Your task to perform on an android device: Empty the shopping cart on amazon.com. Image 0: 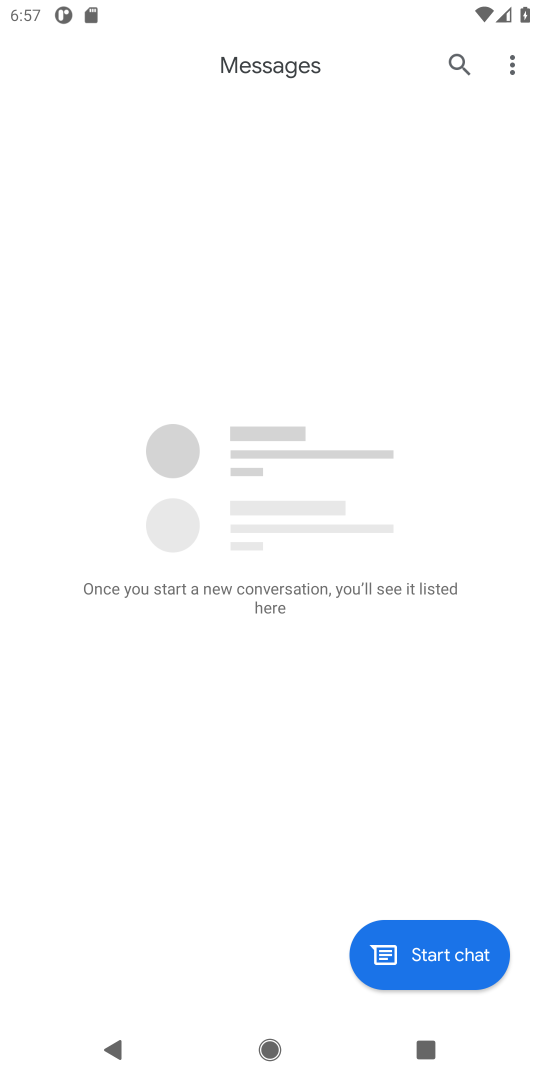
Step 0: press home button
Your task to perform on an android device: Empty the shopping cart on amazon.com. Image 1: 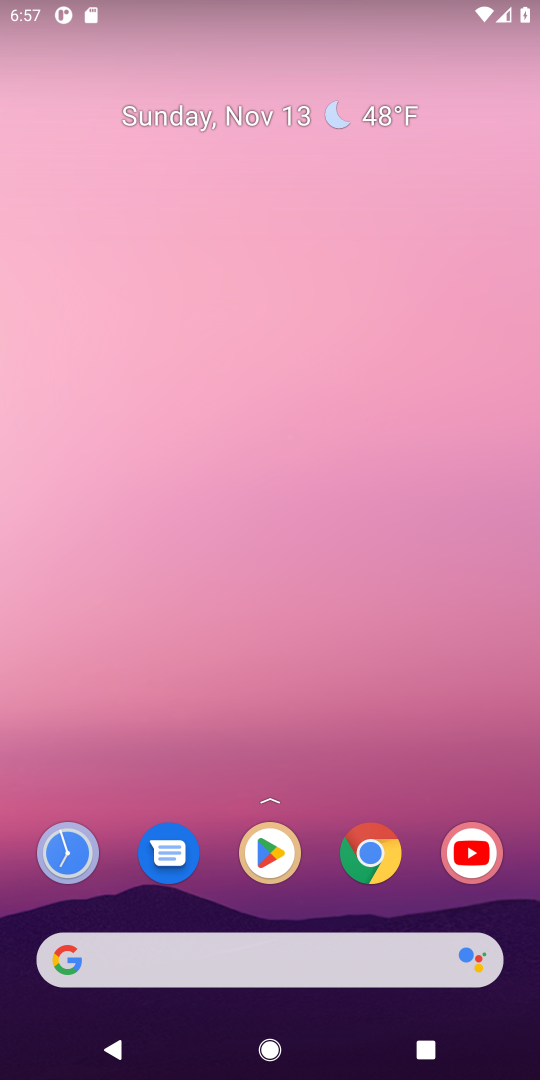
Step 1: click (101, 951)
Your task to perform on an android device: Empty the shopping cart on amazon.com. Image 2: 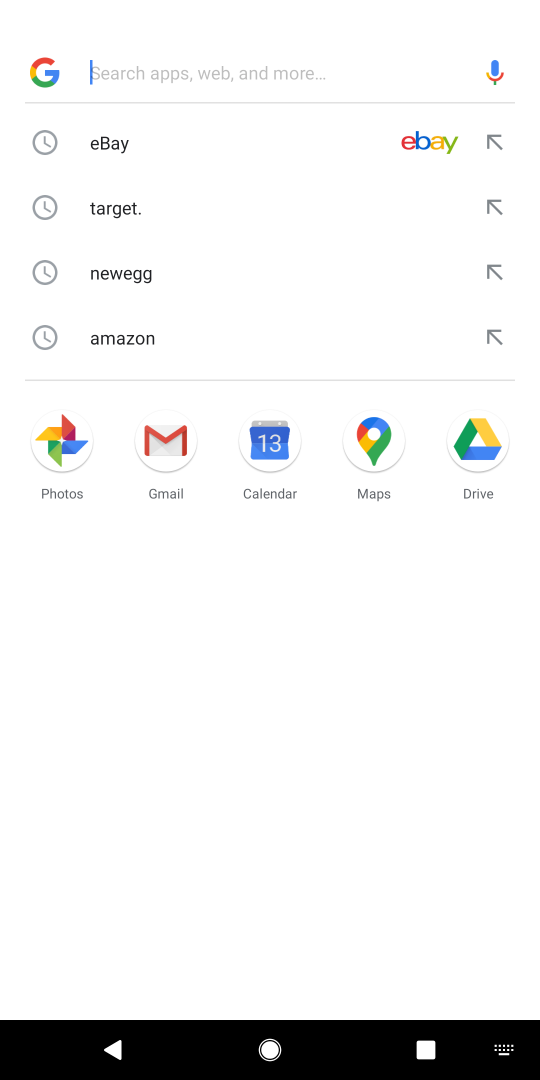
Step 2: type " amazon.com"
Your task to perform on an android device: Empty the shopping cart on amazon.com. Image 3: 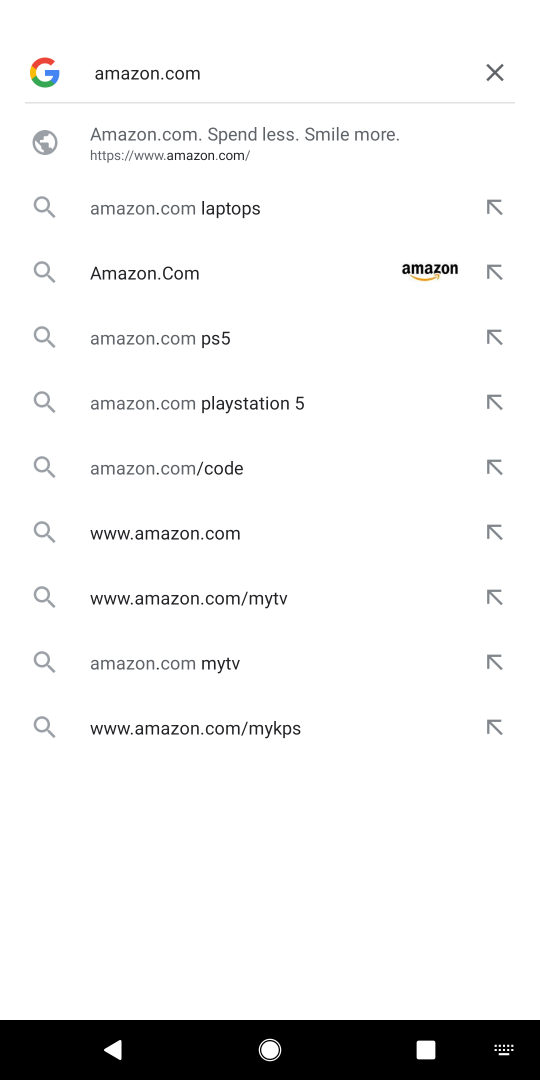
Step 3: press enter
Your task to perform on an android device: Empty the shopping cart on amazon.com. Image 4: 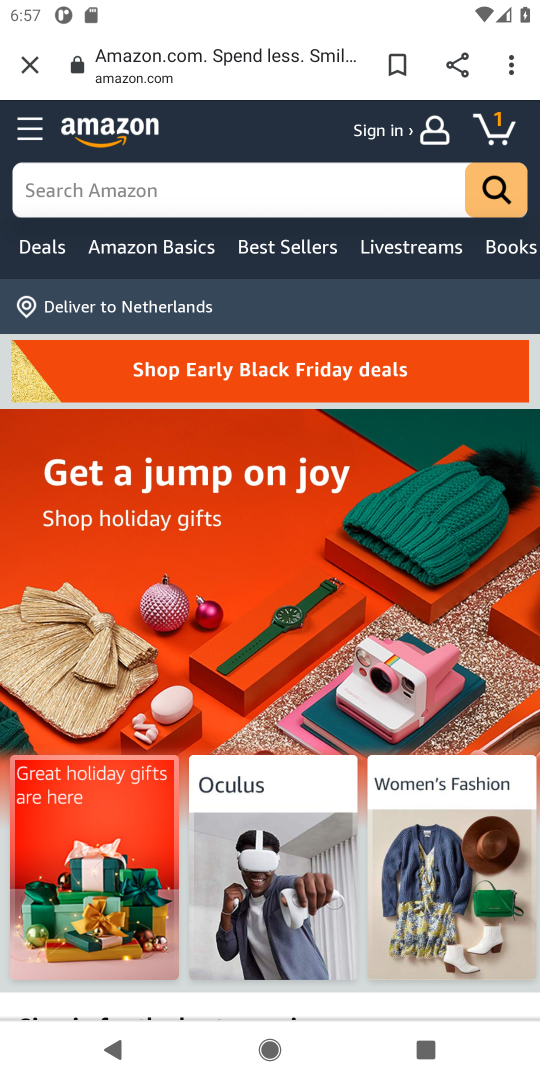
Step 4: click (497, 122)
Your task to perform on an android device: Empty the shopping cart on amazon.com. Image 5: 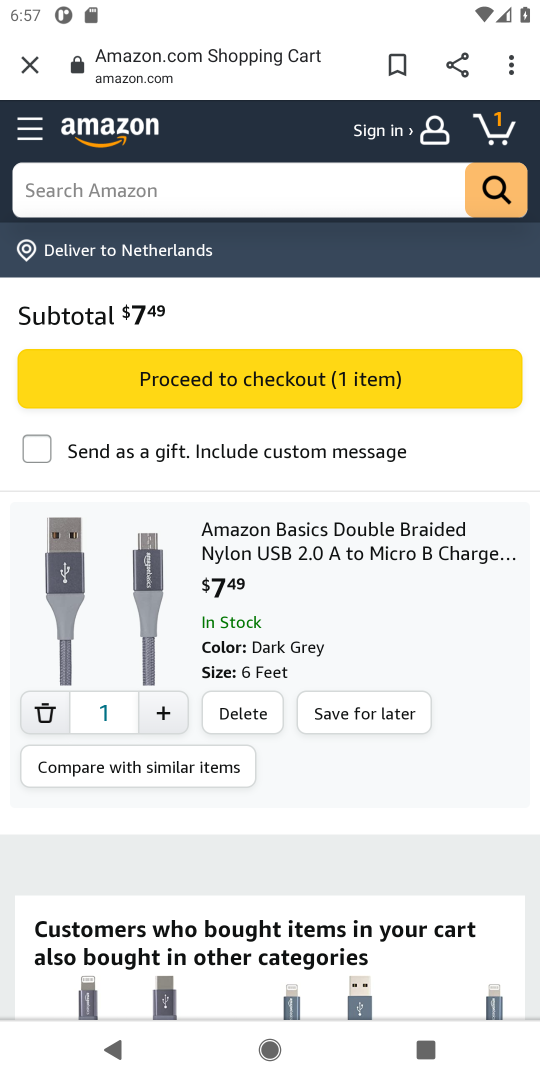
Step 5: click (40, 700)
Your task to perform on an android device: Empty the shopping cart on amazon.com. Image 6: 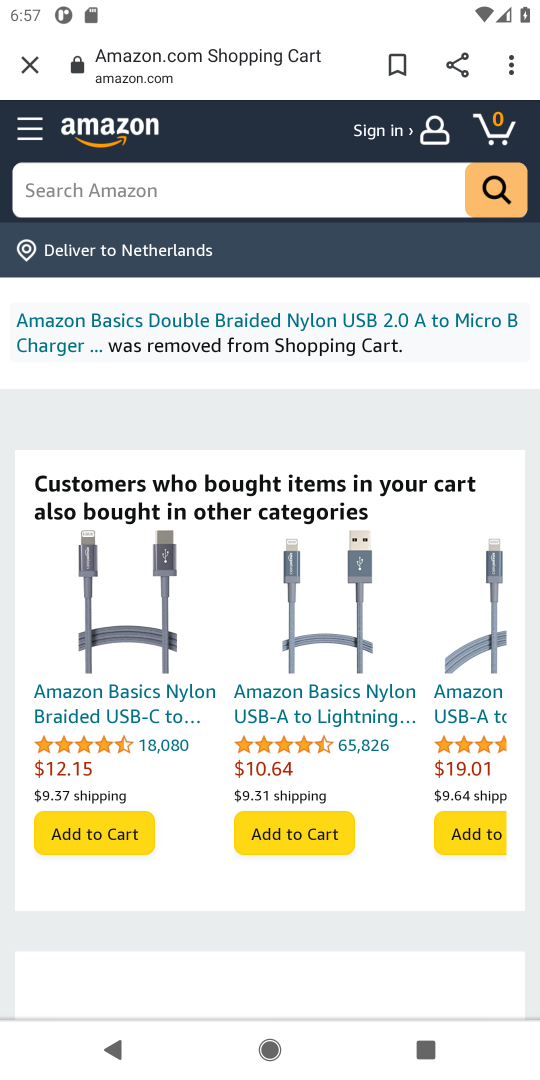
Step 6: task complete